Your task to perform on an android device: turn on wifi Image 0: 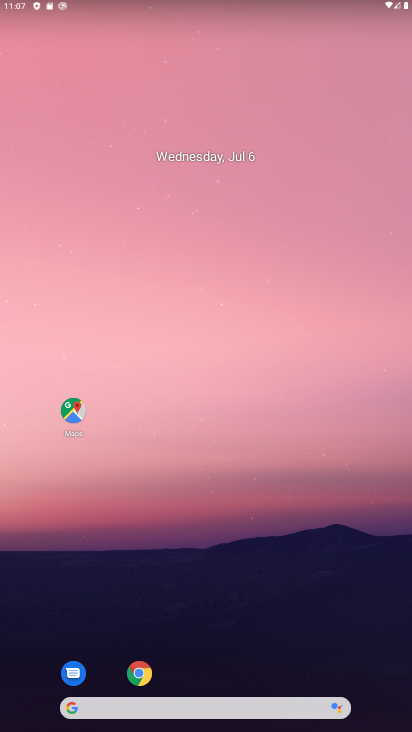
Step 0: drag from (289, 637) to (284, 76)
Your task to perform on an android device: turn on wifi Image 1: 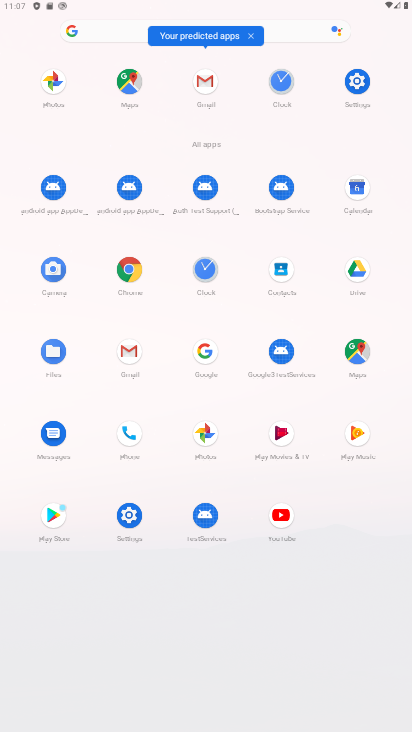
Step 1: click (363, 90)
Your task to perform on an android device: turn on wifi Image 2: 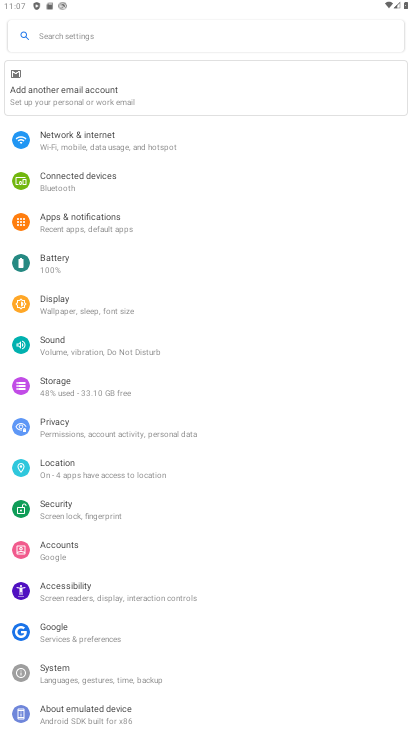
Step 2: click (310, 130)
Your task to perform on an android device: turn on wifi Image 3: 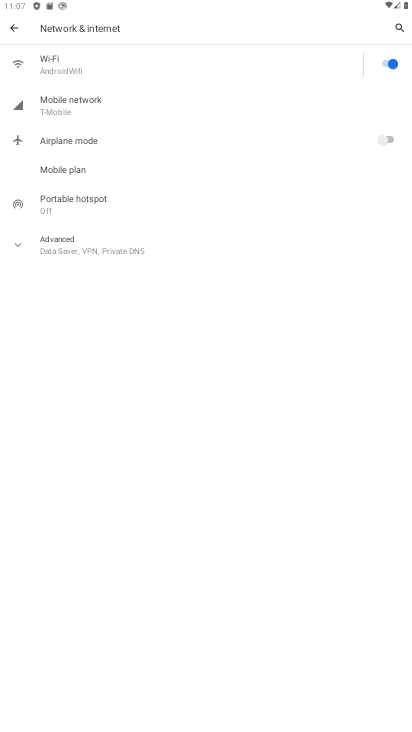
Step 3: task complete